Your task to perform on an android device: turn vacation reply on in the gmail app Image 0: 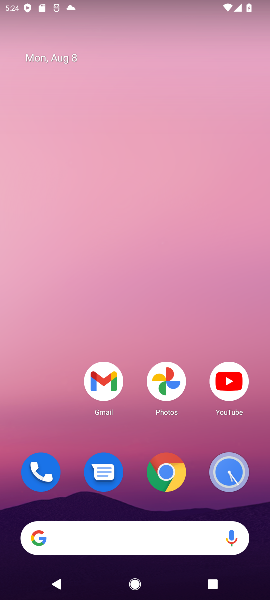
Step 0: press home button
Your task to perform on an android device: turn vacation reply on in the gmail app Image 1: 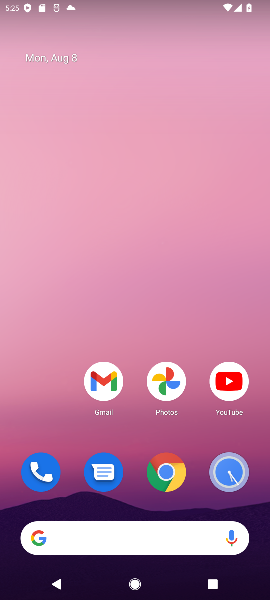
Step 1: drag from (124, 510) to (146, 59)
Your task to perform on an android device: turn vacation reply on in the gmail app Image 2: 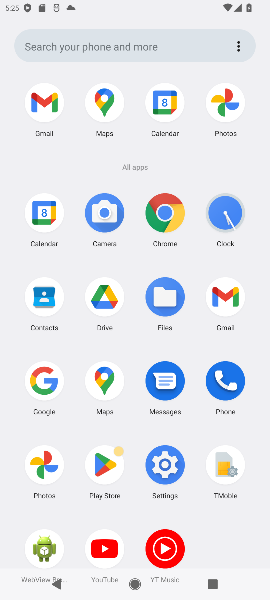
Step 2: click (44, 95)
Your task to perform on an android device: turn vacation reply on in the gmail app Image 3: 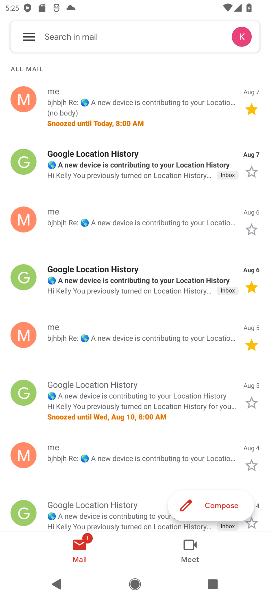
Step 3: click (25, 39)
Your task to perform on an android device: turn vacation reply on in the gmail app Image 4: 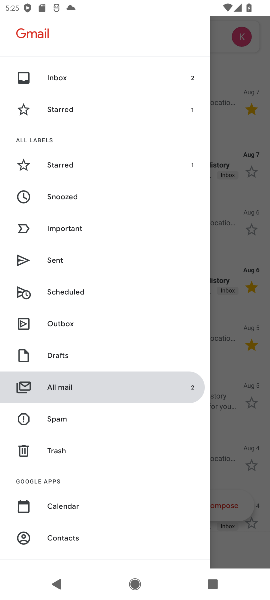
Step 4: drag from (98, 494) to (93, 253)
Your task to perform on an android device: turn vacation reply on in the gmail app Image 5: 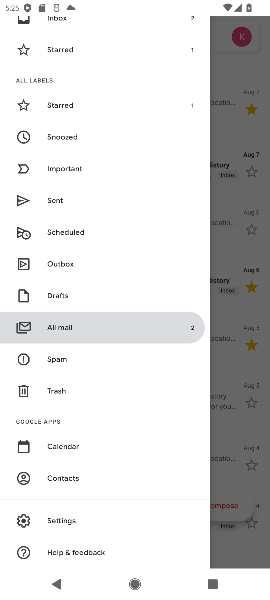
Step 5: click (58, 523)
Your task to perform on an android device: turn vacation reply on in the gmail app Image 6: 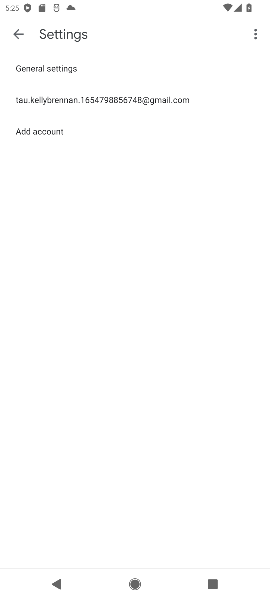
Step 6: click (80, 102)
Your task to perform on an android device: turn vacation reply on in the gmail app Image 7: 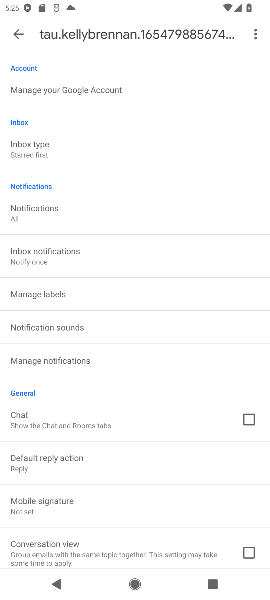
Step 7: drag from (161, 503) to (153, 2)
Your task to perform on an android device: turn vacation reply on in the gmail app Image 8: 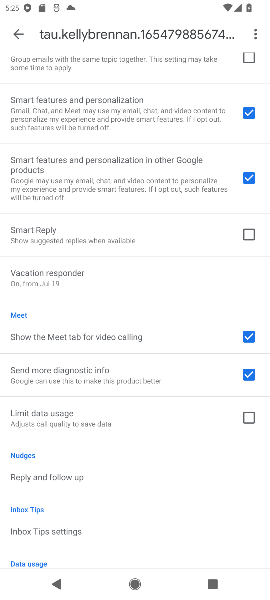
Step 8: click (32, 277)
Your task to perform on an android device: turn vacation reply on in the gmail app Image 9: 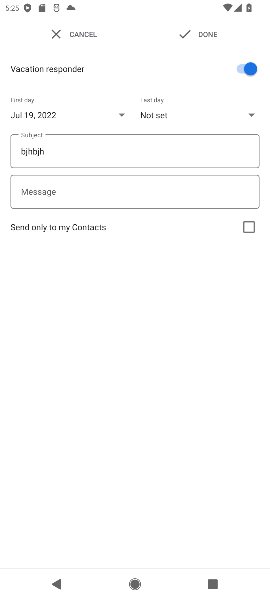
Step 9: task complete